Your task to perform on an android device: turn off location Image 0: 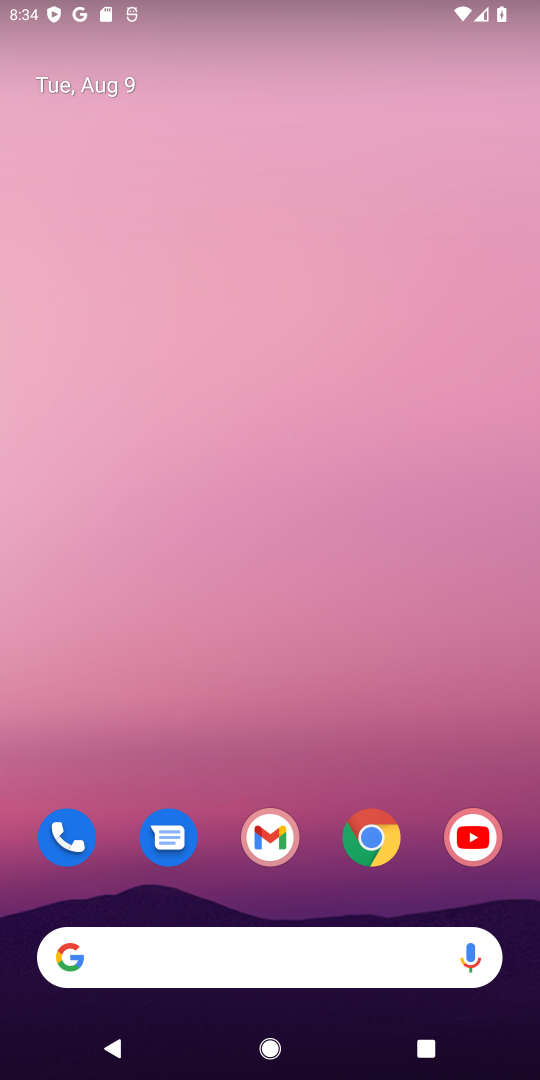
Step 0: drag from (321, 844) to (319, 110)
Your task to perform on an android device: turn off location Image 1: 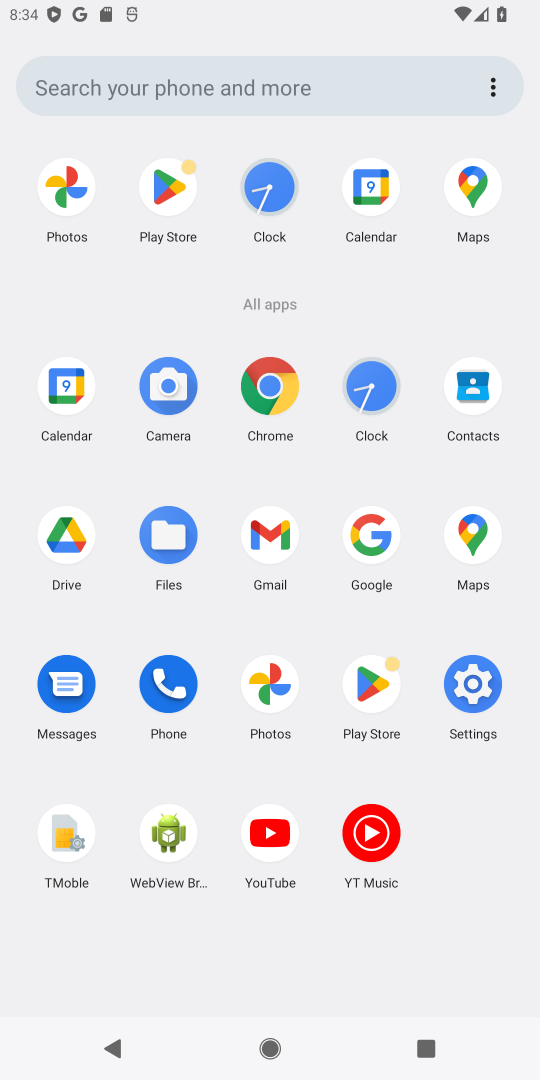
Step 1: click (468, 688)
Your task to perform on an android device: turn off location Image 2: 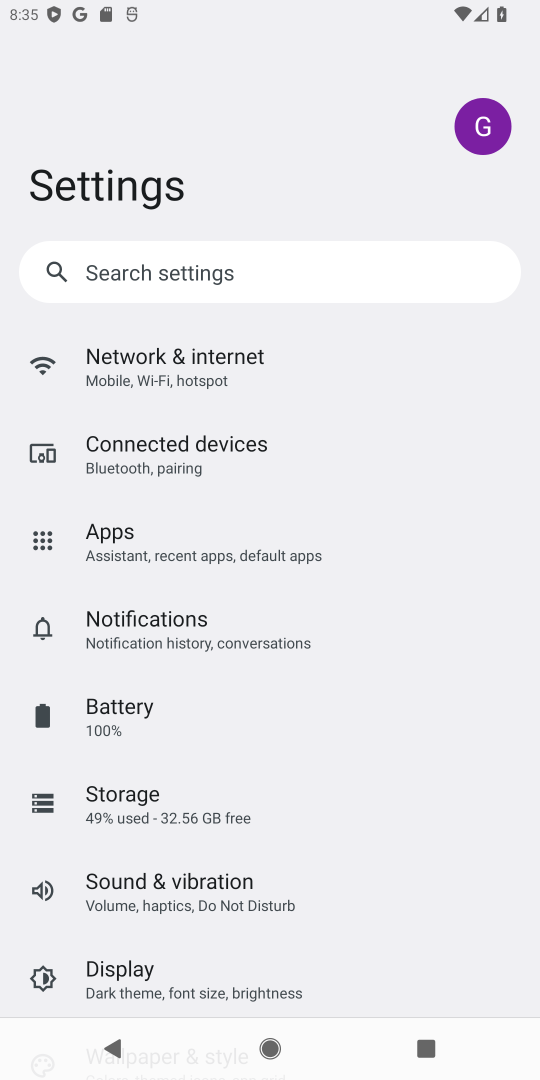
Step 2: drag from (195, 890) to (195, 385)
Your task to perform on an android device: turn off location Image 3: 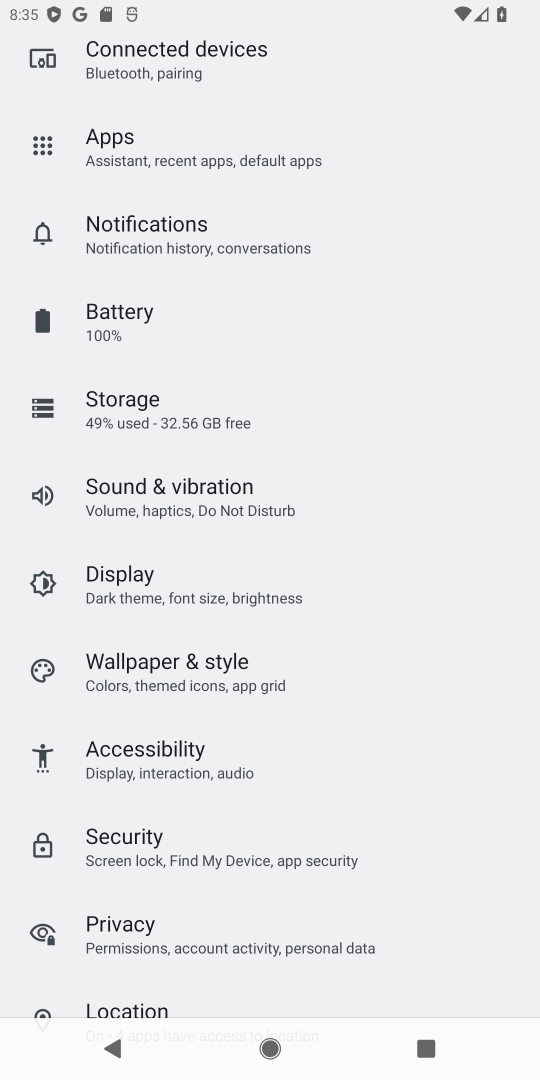
Step 3: drag from (151, 983) to (209, 641)
Your task to perform on an android device: turn off location Image 4: 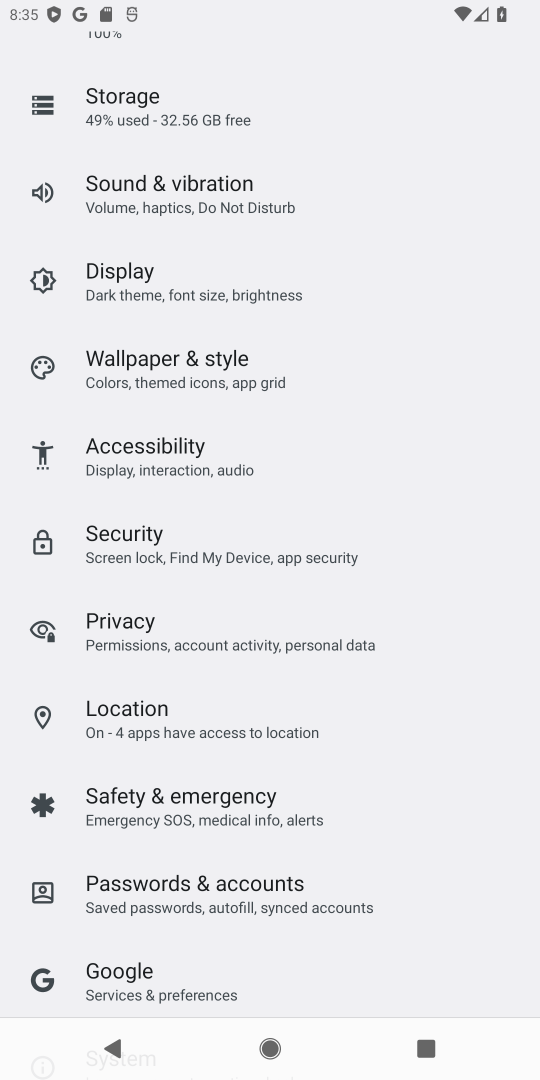
Step 4: click (146, 703)
Your task to perform on an android device: turn off location Image 5: 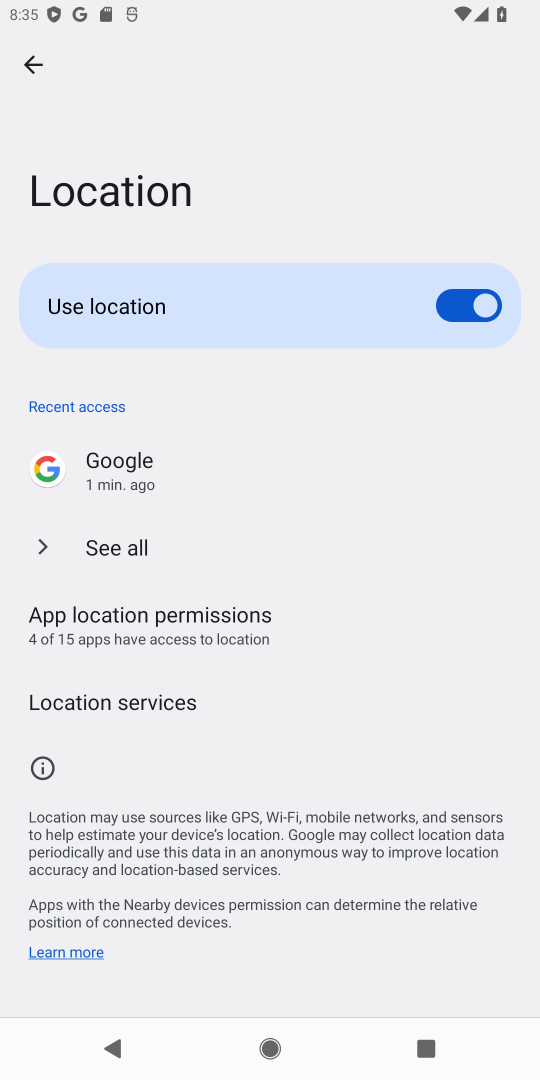
Step 5: click (469, 306)
Your task to perform on an android device: turn off location Image 6: 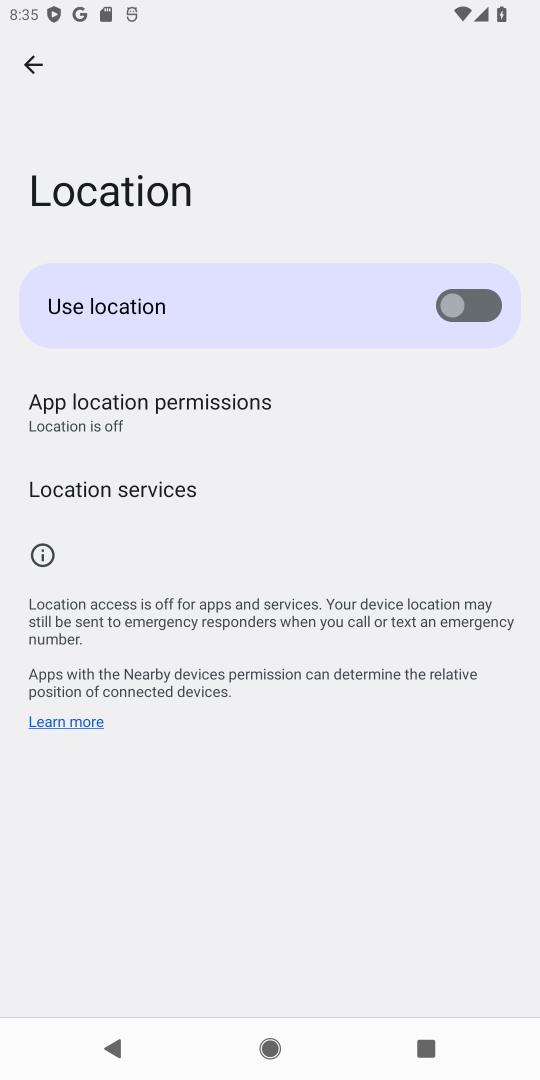
Step 6: task complete